Your task to perform on an android device: Toggle the flashlight Image 0: 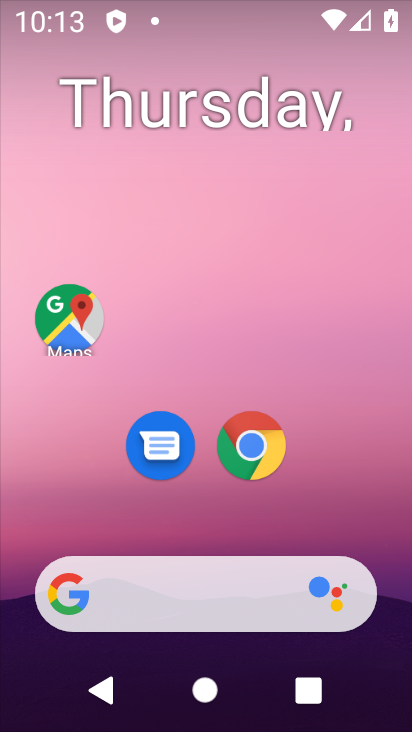
Step 0: drag from (351, 513) to (255, 15)
Your task to perform on an android device: Toggle the flashlight Image 1: 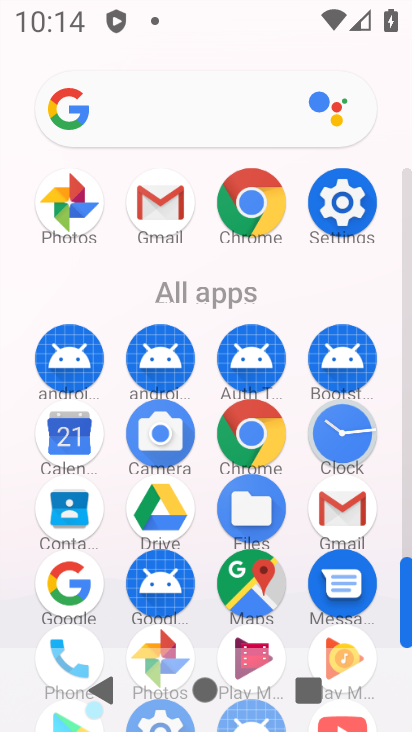
Step 1: click (369, 189)
Your task to perform on an android device: Toggle the flashlight Image 2: 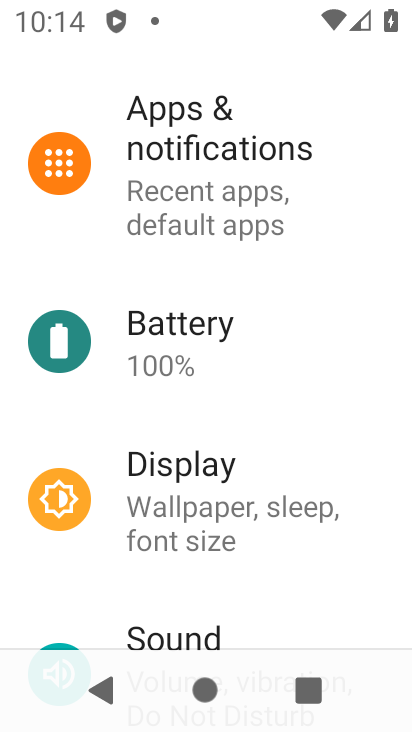
Step 2: task complete